Your task to perform on an android device: Open privacy settings Image 0: 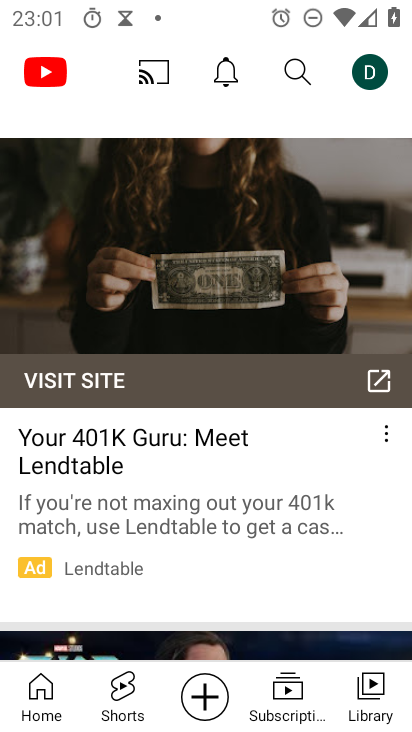
Step 0: press home button
Your task to perform on an android device: Open privacy settings Image 1: 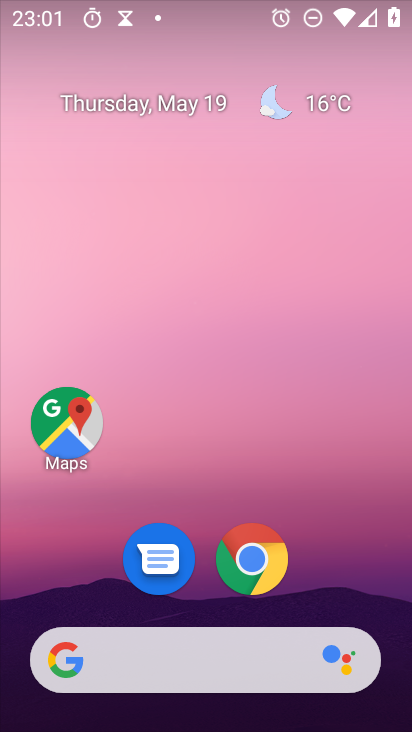
Step 1: drag from (235, 722) to (242, 219)
Your task to perform on an android device: Open privacy settings Image 2: 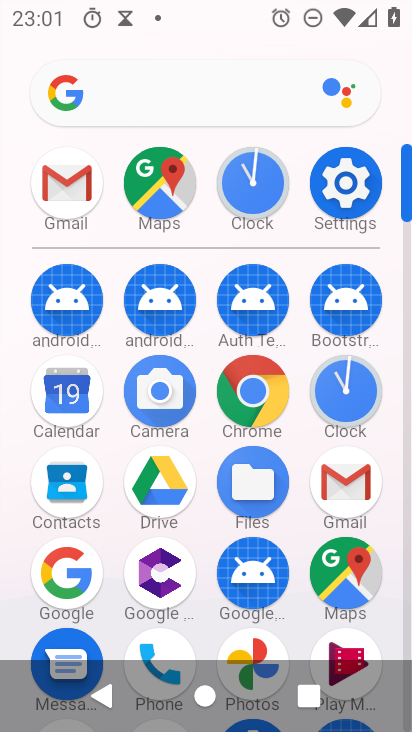
Step 2: click (346, 177)
Your task to perform on an android device: Open privacy settings Image 3: 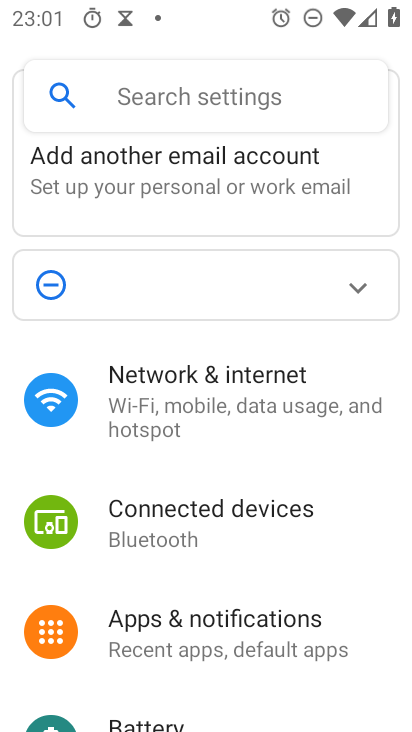
Step 3: drag from (190, 642) to (190, 348)
Your task to perform on an android device: Open privacy settings Image 4: 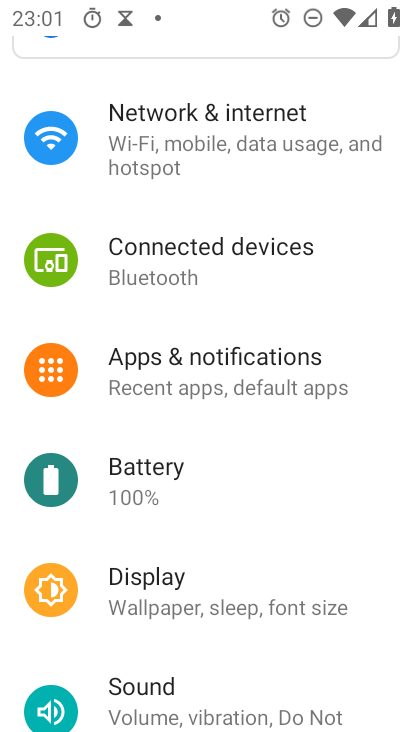
Step 4: drag from (166, 637) to (172, 271)
Your task to perform on an android device: Open privacy settings Image 5: 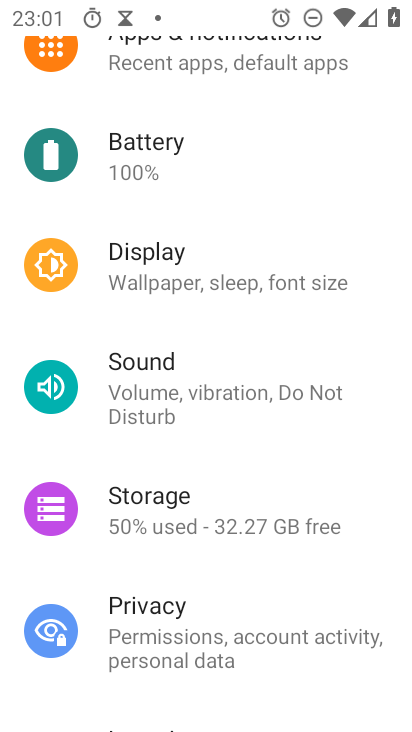
Step 5: click (154, 621)
Your task to perform on an android device: Open privacy settings Image 6: 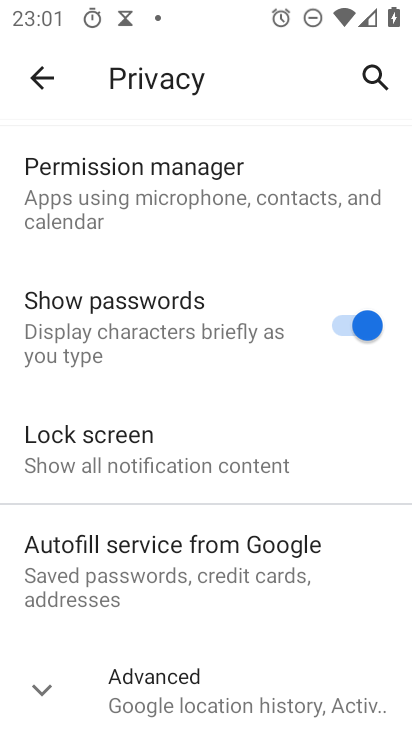
Step 6: task complete